Your task to perform on an android device: toggle location history Image 0: 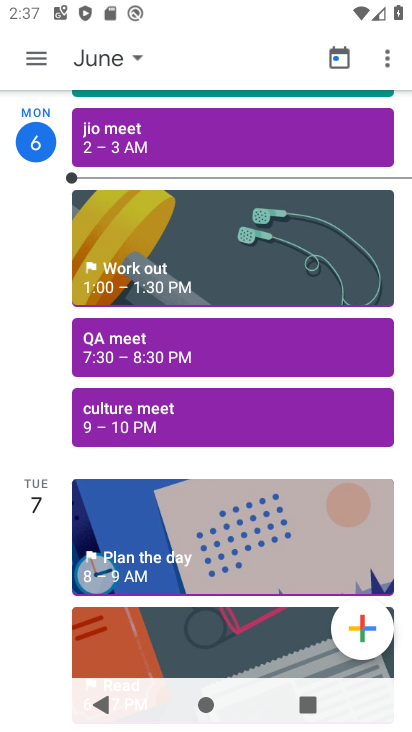
Step 0: press home button
Your task to perform on an android device: toggle location history Image 1: 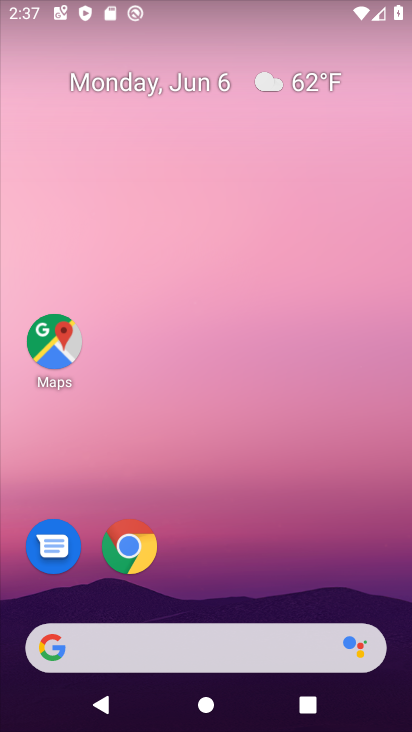
Step 1: drag from (215, 581) to (222, 187)
Your task to perform on an android device: toggle location history Image 2: 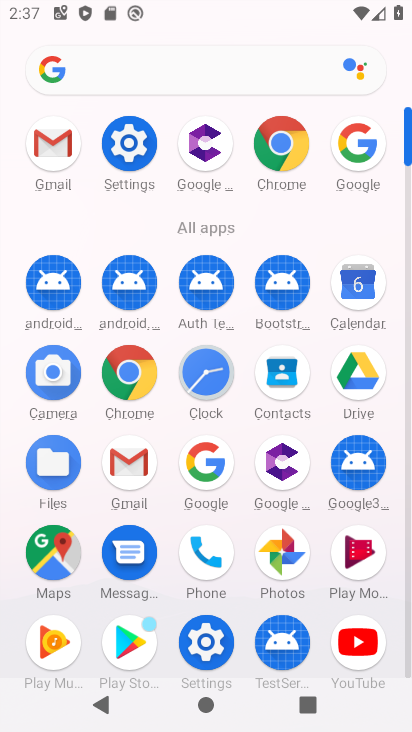
Step 2: click (144, 142)
Your task to perform on an android device: toggle location history Image 3: 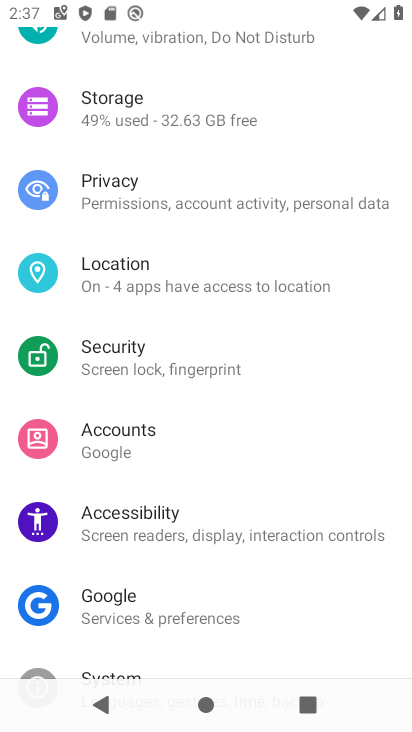
Step 3: drag from (266, 573) to (212, 239)
Your task to perform on an android device: toggle location history Image 4: 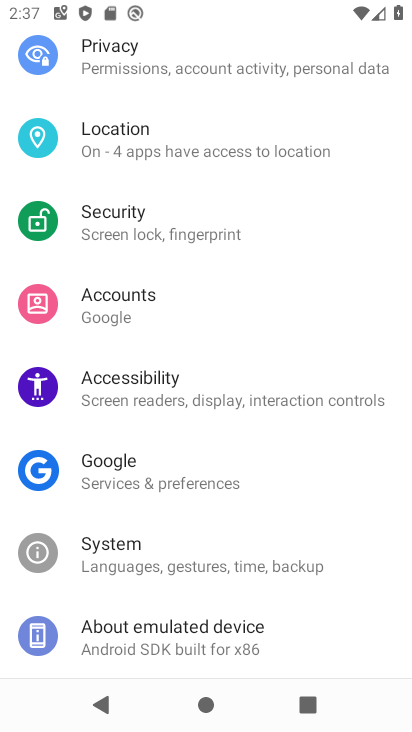
Step 4: drag from (212, 281) to (212, 530)
Your task to perform on an android device: toggle location history Image 5: 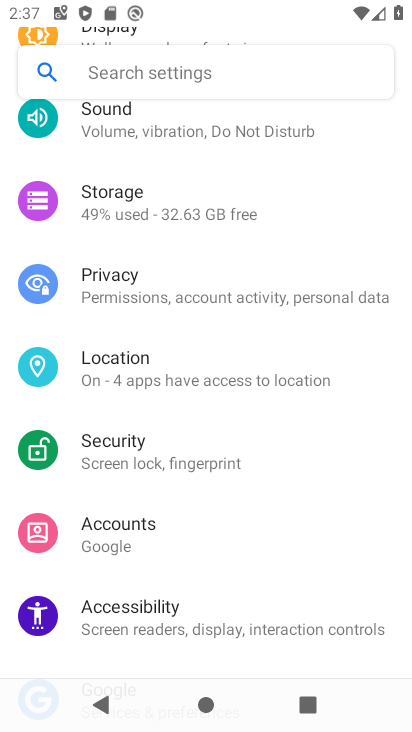
Step 5: drag from (211, 268) to (219, 533)
Your task to perform on an android device: toggle location history Image 6: 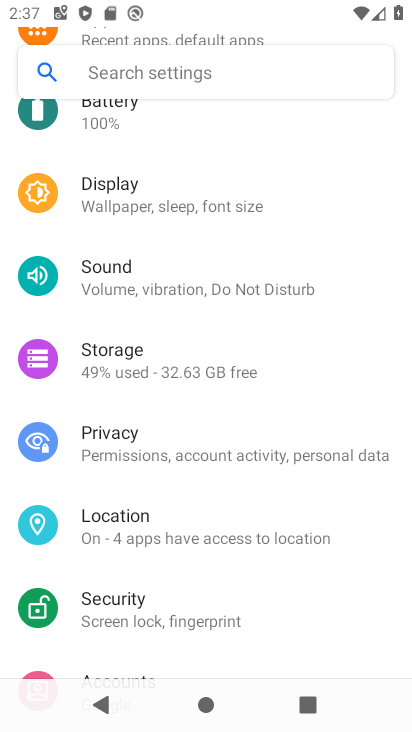
Step 6: drag from (192, 253) to (209, 561)
Your task to perform on an android device: toggle location history Image 7: 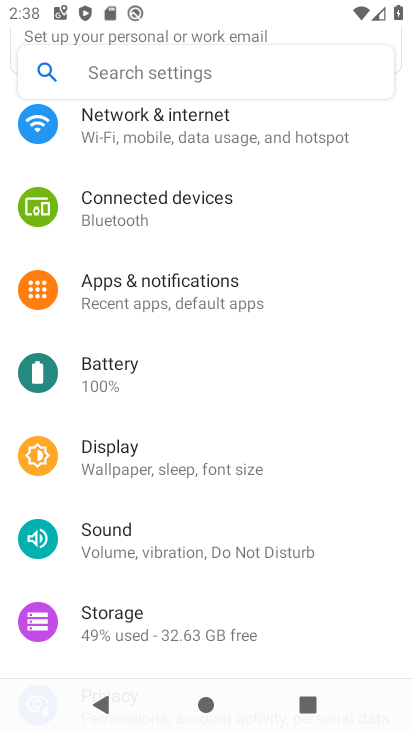
Step 7: drag from (195, 258) to (237, 198)
Your task to perform on an android device: toggle location history Image 8: 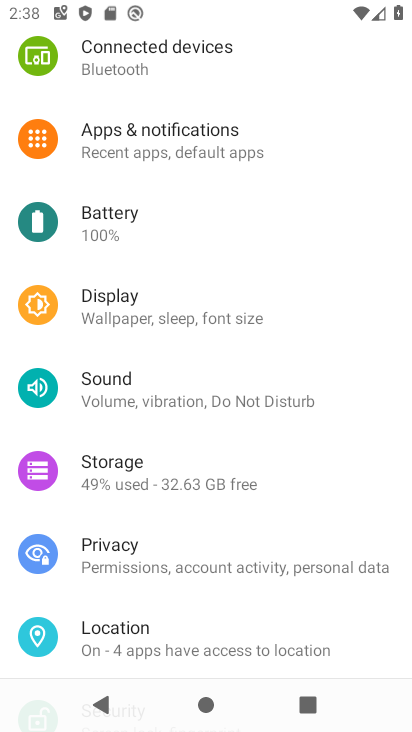
Step 8: drag from (224, 543) to (232, 277)
Your task to perform on an android device: toggle location history Image 9: 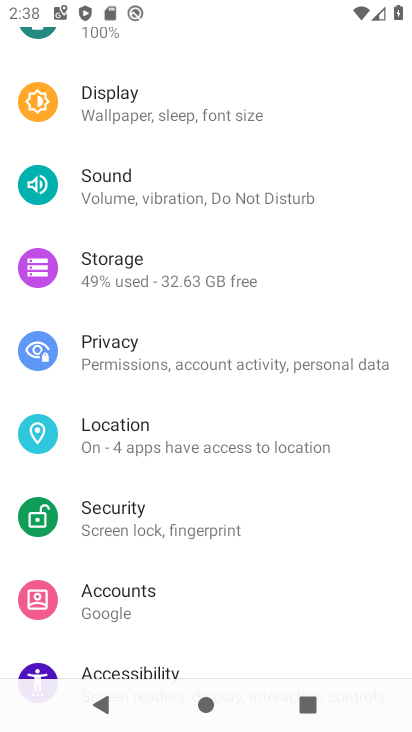
Step 9: click (179, 439)
Your task to perform on an android device: toggle location history Image 10: 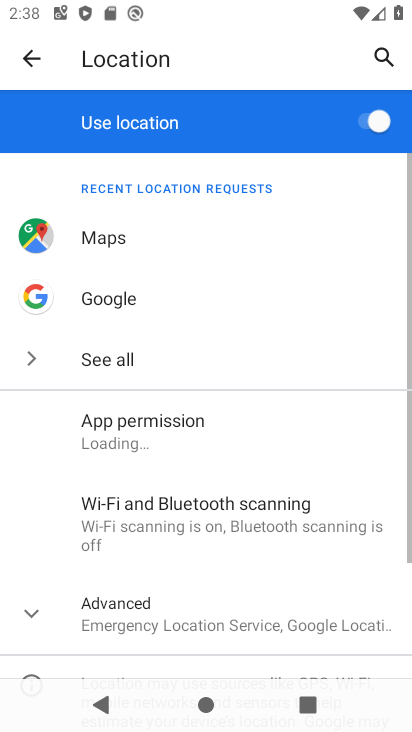
Step 10: drag from (213, 626) to (187, 293)
Your task to perform on an android device: toggle location history Image 11: 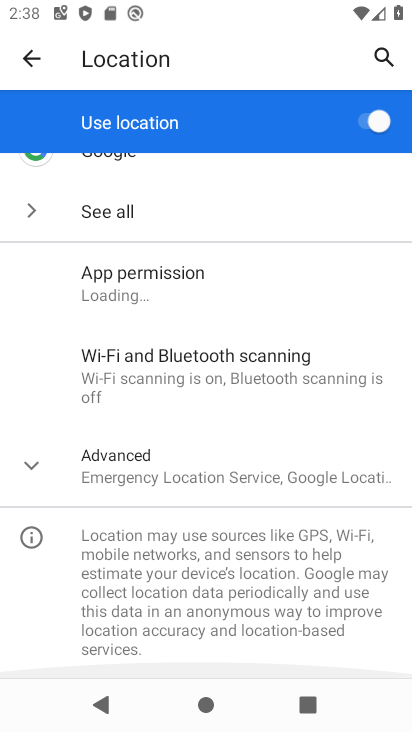
Step 11: click (154, 474)
Your task to perform on an android device: toggle location history Image 12: 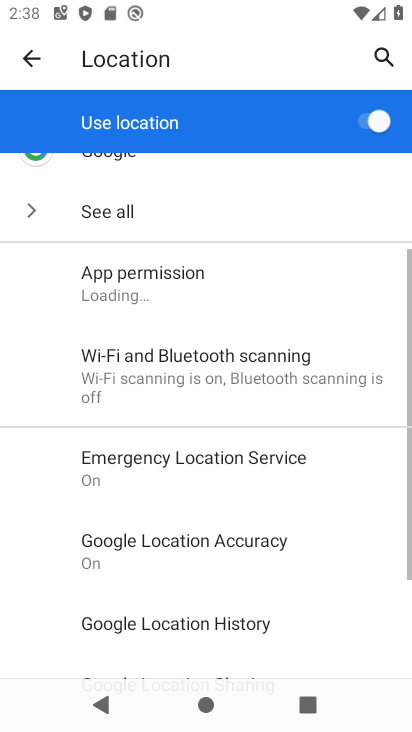
Step 12: drag from (190, 551) to (201, 264)
Your task to perform on an android device: toggle location history Image 13: 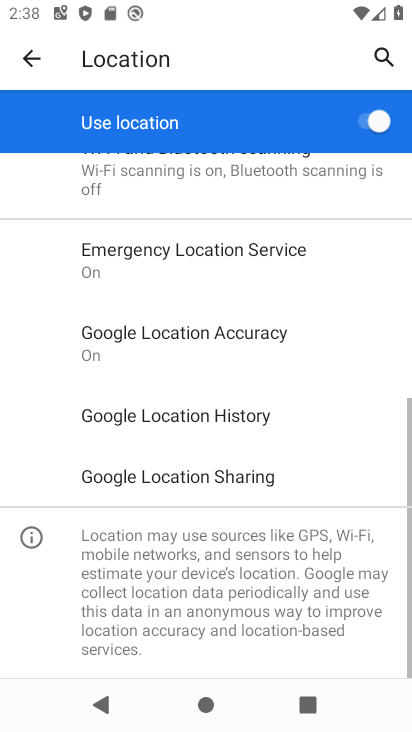
Step 13: click (204, 402)
Your task to perform on an android device: toggle location history Image 14: 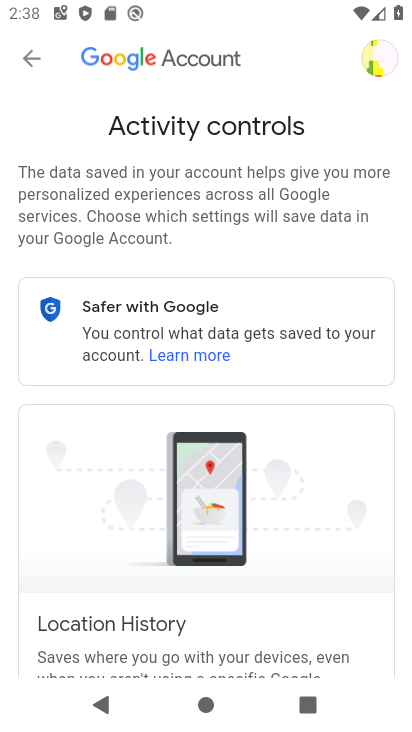
Step 14: drag from (201, 591) to (210, 256)
Your task to perform on an android device: toggle location history Image 15: 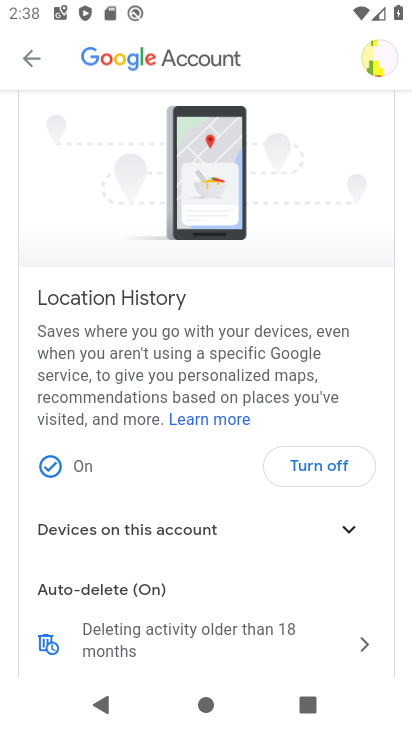
Step 15: click (312, 456)
Your task to perform on an android device: toggle location history Image 16: 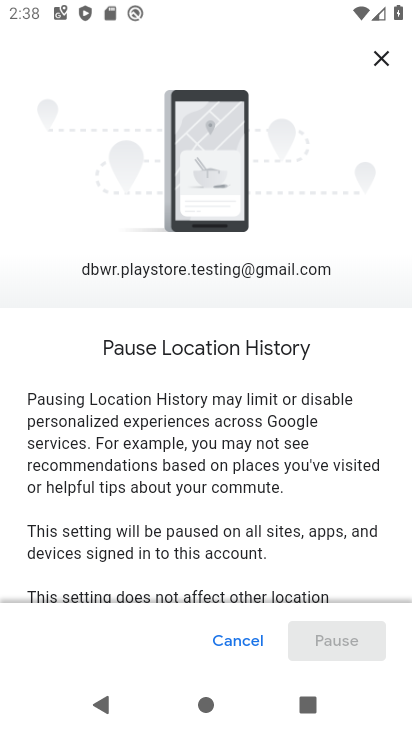
Step 16: drag from (314, 514) to (324, 155)
Your task to perform on an android device: toggle location history Image 17: 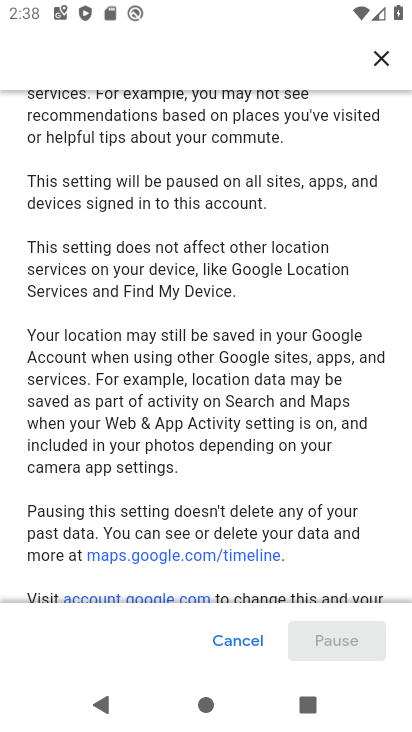
Step 17: drag from (291, 453) to (295, 190)
Your task to perform on an android device: toggle location history Image 18: 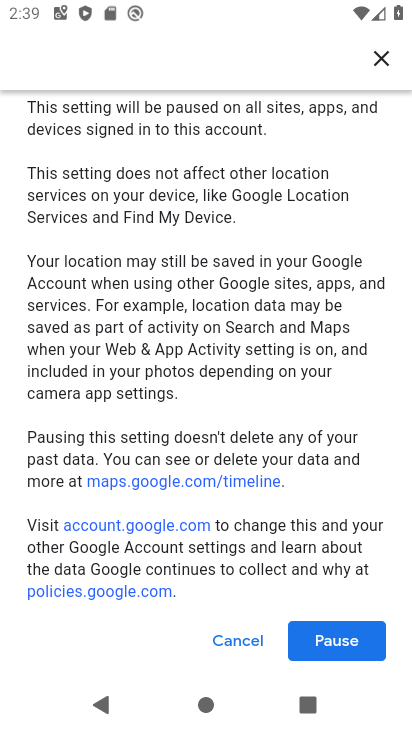
Step 18: click (314, 643)
Your task to perform on an android device: toggle location history Image 19: 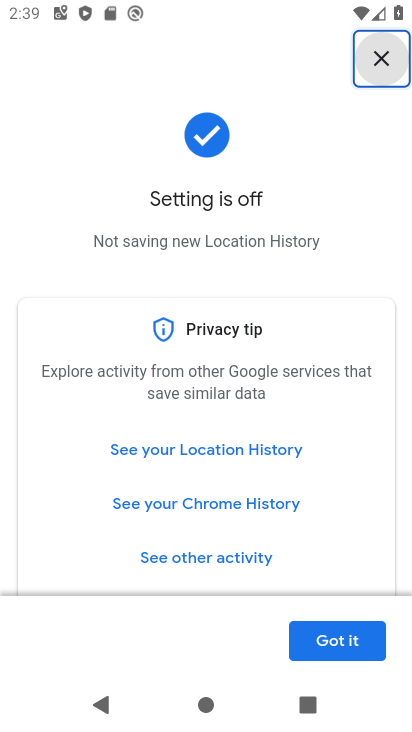
Step 19: task complete